Your task to perform on an android device: turn on airplane mode Image 0: 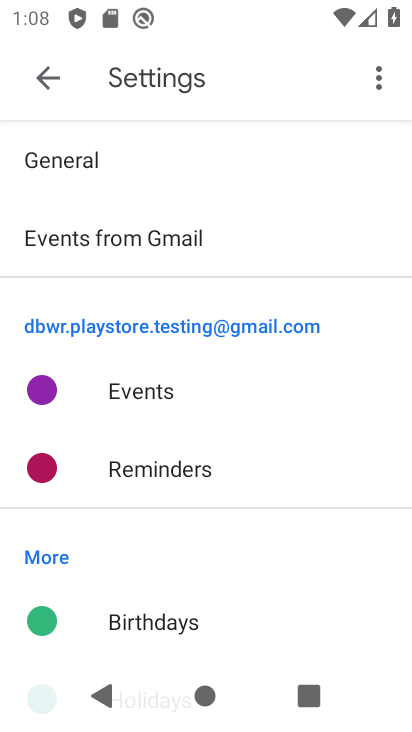
Step 0: press back button
Your task to perform on an android device: turn on airplane mode Image 1: 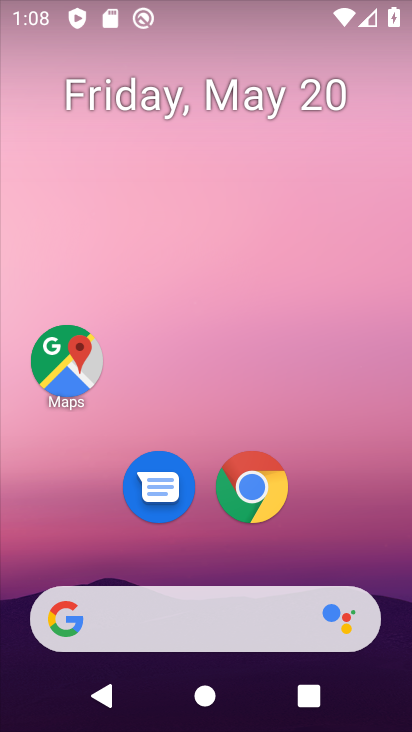
Step 1: drag from (340, 518) to (286, 53)
Your task to perform on an android device: turn on airplane mode Image 2: 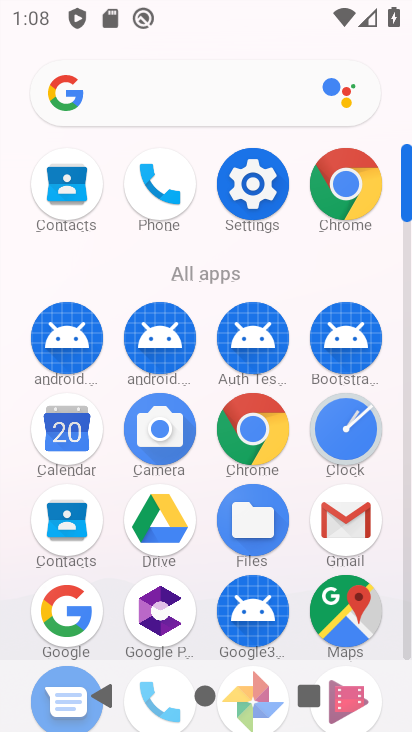
Step 2: drag from (15, 600) to (2, 259)
Your task to perform on an android device: turn on airplane mode Image 3: 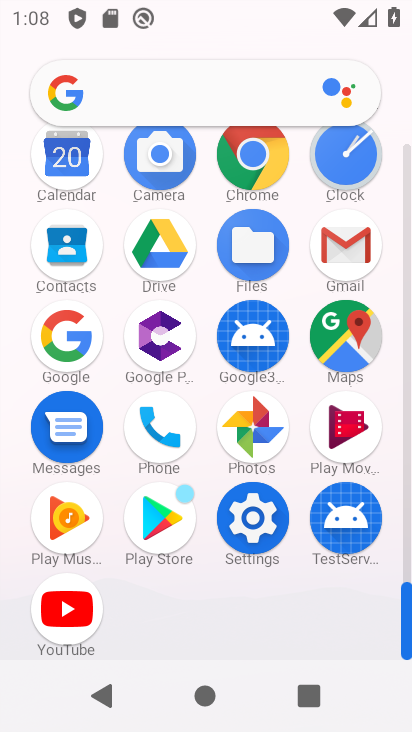
Step 3: click (251, 515)
Your task to perform on an android device: turn on airplane mode Image 4: 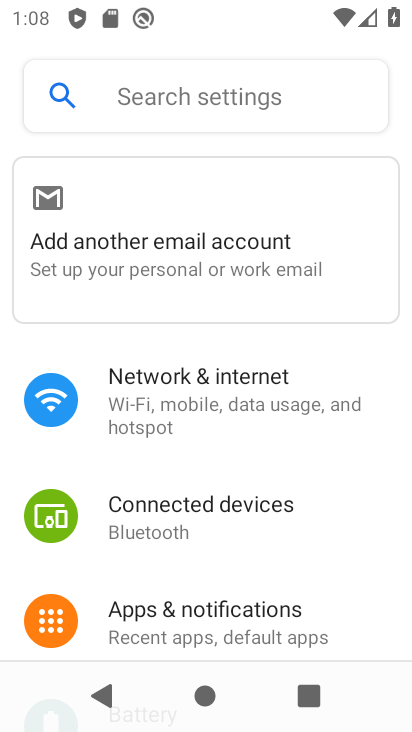
Step 4: click (195, 395)
Your task to perform on an android device: turn on airplane mode Image 5: 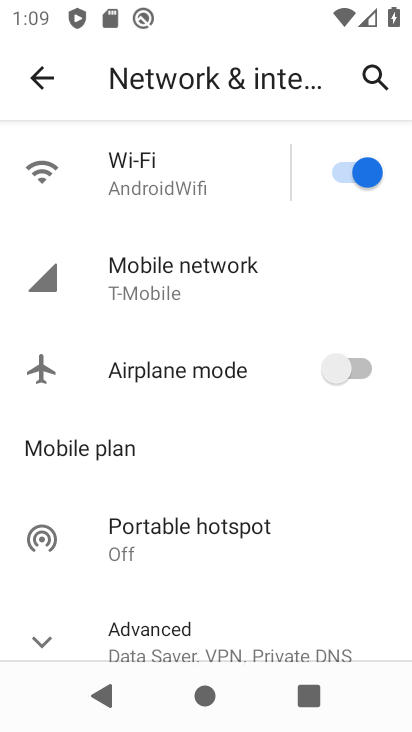
Step 5: click (346, 364)
Your task to perform on an android device: turn on airplane mode Image 6: 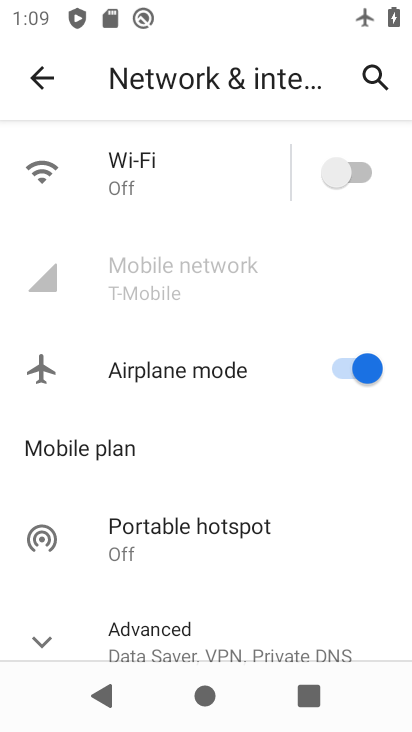
Step 6: task complete